Your task to perform on an android device: turn off sleep mode Image 0: 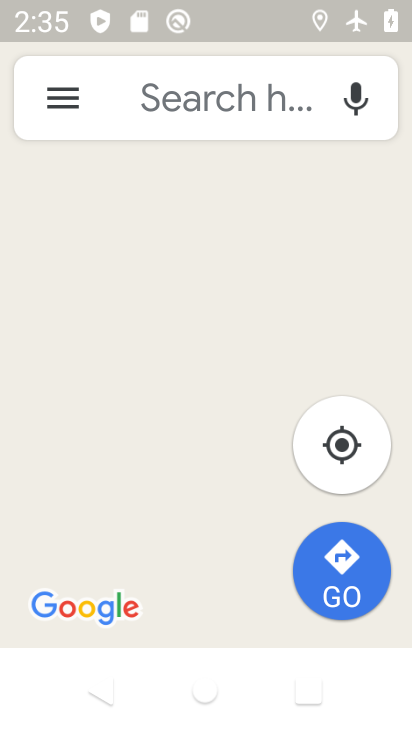
Step 0: press home button
Your task to perform on an android device: turn off sleep mode Image 1: 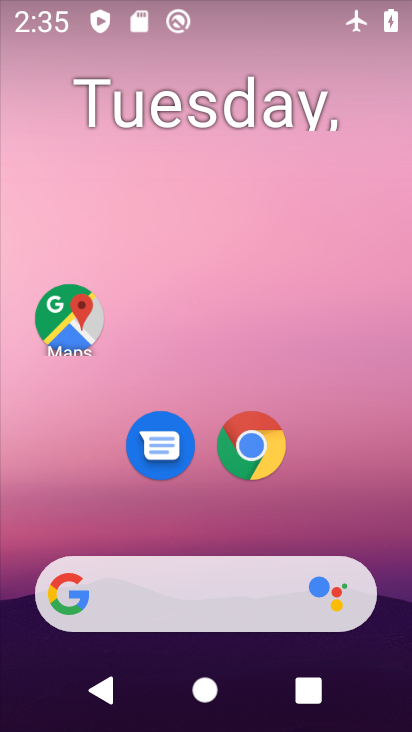
Step 1: drag from (340, 489) to (229, 97)
Your task to perform on an android device: turn off sleep mode Image 2: 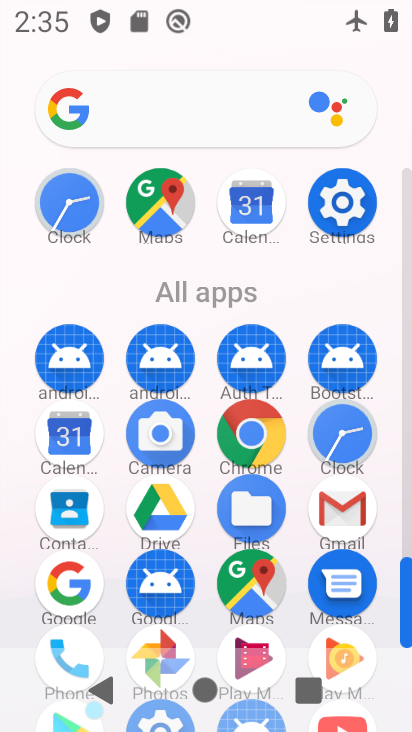
Step 2: click (344, 191)
Your task to perform on an android device: turn off sleep mode Image 3: 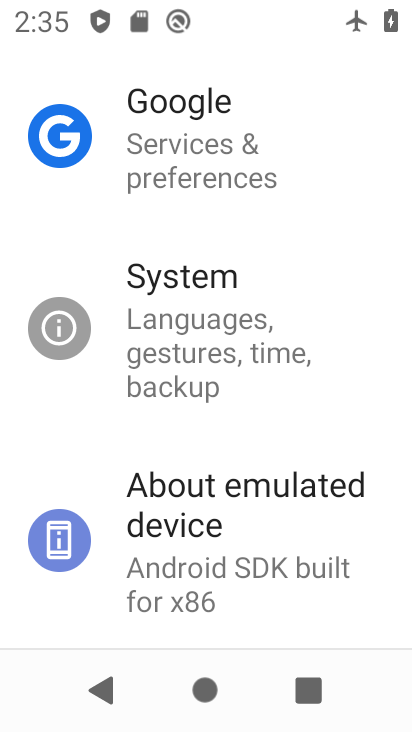
Step 3: drag from (318, 151) to (267, 651)
Your task to perform on an android device: turn off sleep mode Image 4: 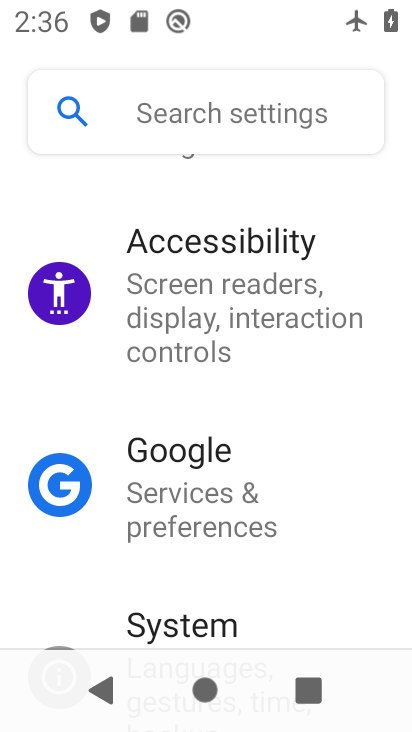
Step 4: click (238, 114)
Your task to perform on an android device: turn off sleep mode Image 5: 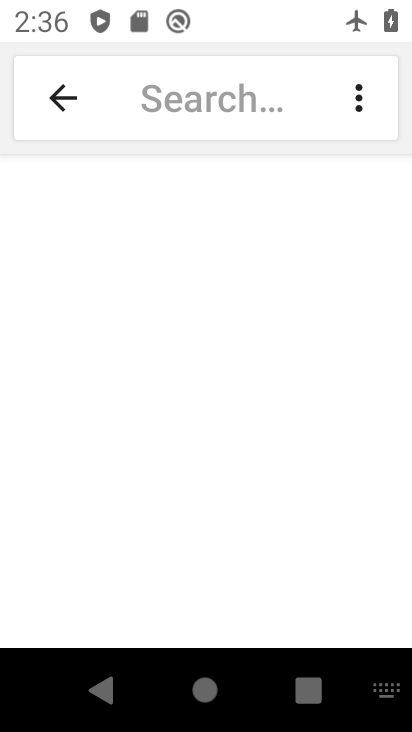
Step 5: type "sleep mode"
Your task to perform on an android device: turn off sleep mode Image 6: 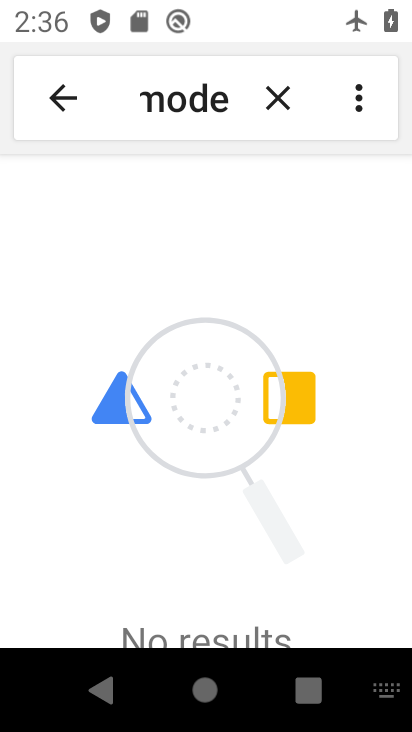
Step 6: task complete